Your task to perform on an android device: change the upload size in google photos Image 0: 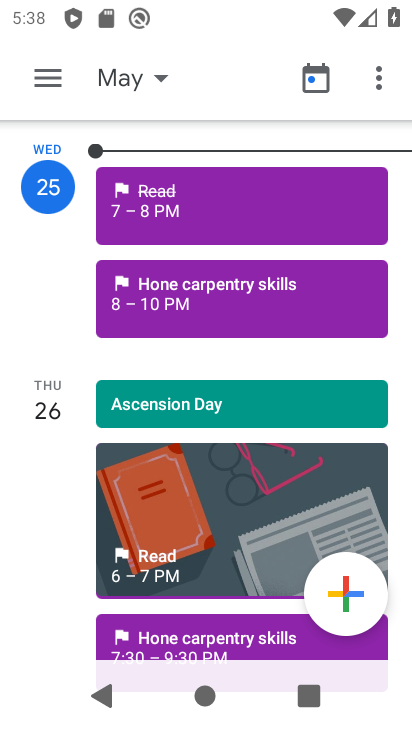
Step 0: press home button
Your task to perform on an android device: change the upload size in google photos Image 1: 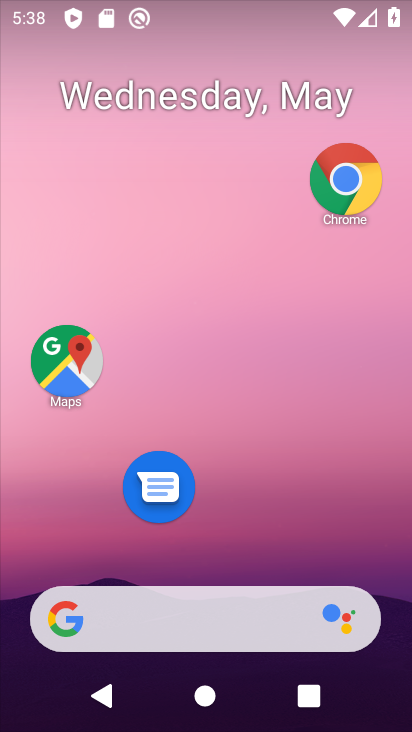
Step 1: drag from (239, 534) to (130, 18)
Your task to perform on an android device: change the upload size in google photos Image 2: 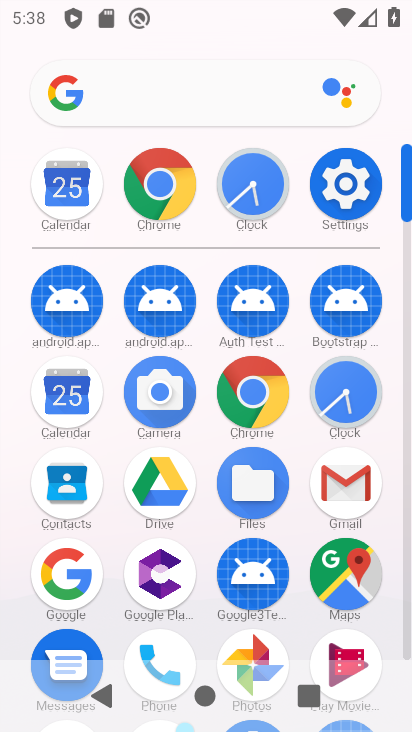
Step 2: click (251, 642)
Your task to perform on an android device: change the upload size in google photos Image 3: 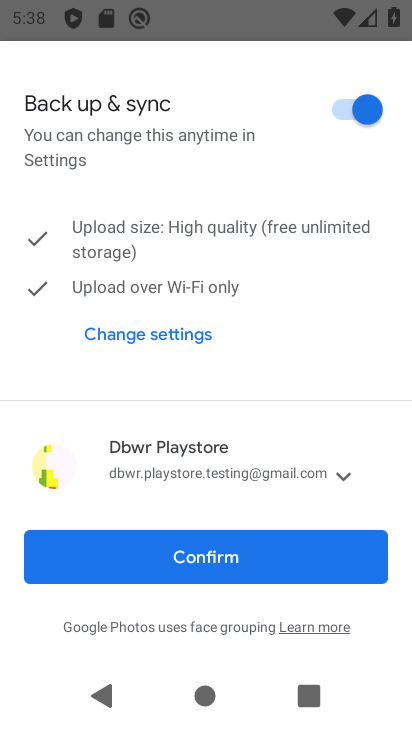
Step 3: click (200, 572)
Your task to perform on an android device: change the upload size in google photos Image 4: 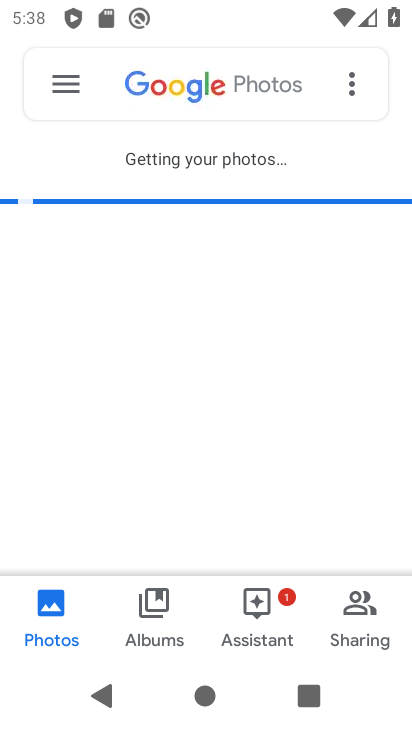
Step 4: click (60, 89)
Your task to perform on an android device: change the upload size in google photos Image 5: 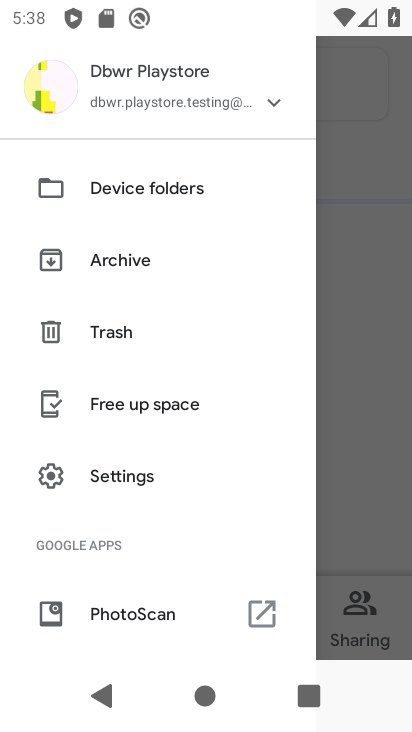
Step 5: click (131, 476)
Your task to perform on an android device: change the upload size in google photos Image 6: 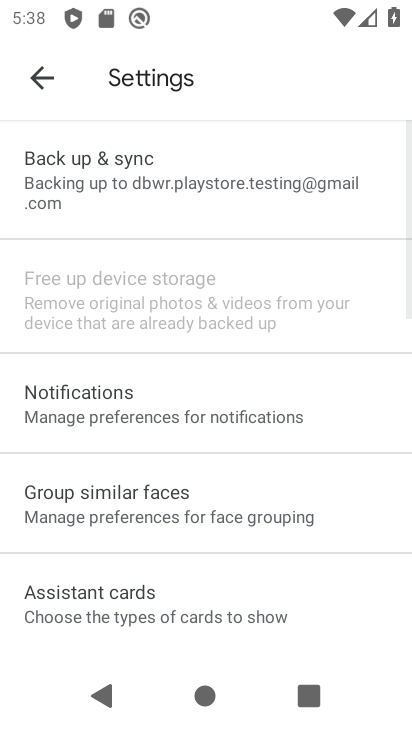
Step 6: click (125, 178)
Your task to perform on an android device: change the upload size in google photos Image 7: 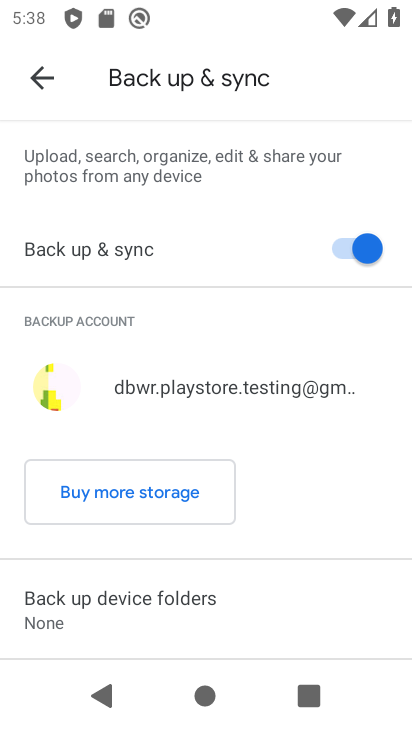
Step 7: drag from (122, 626) to (204, 165)
Your task to perform on an android device: change the upload size in google photos Image 8: 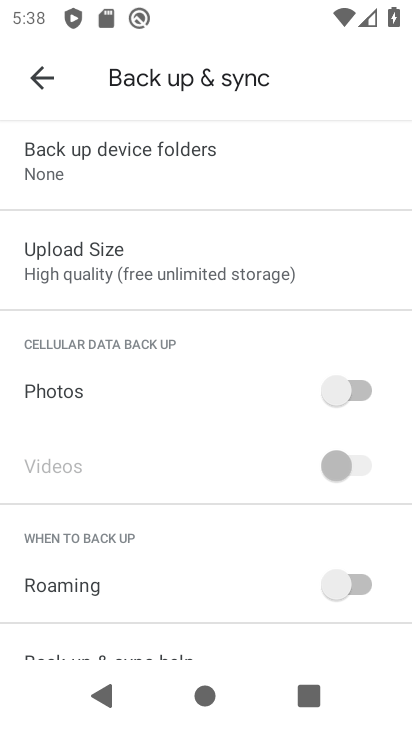
Step 8: click (158, 279)
Your task to perform on an android device: change the upload size in google photos Image 9: 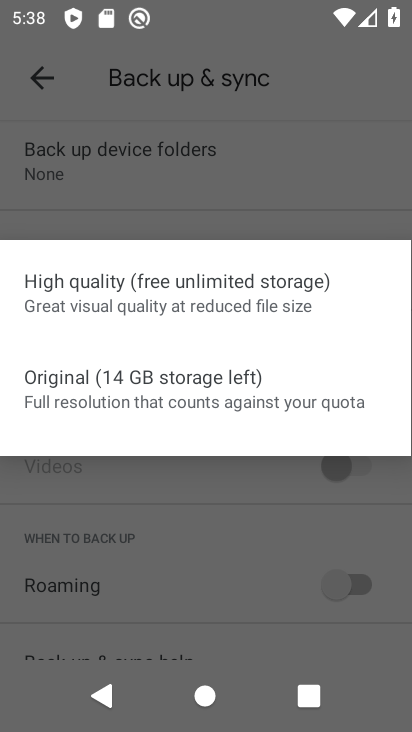
Step 9: click (79, 400)
Your task to perform on an android device: change the upload size in google photos Image 10: 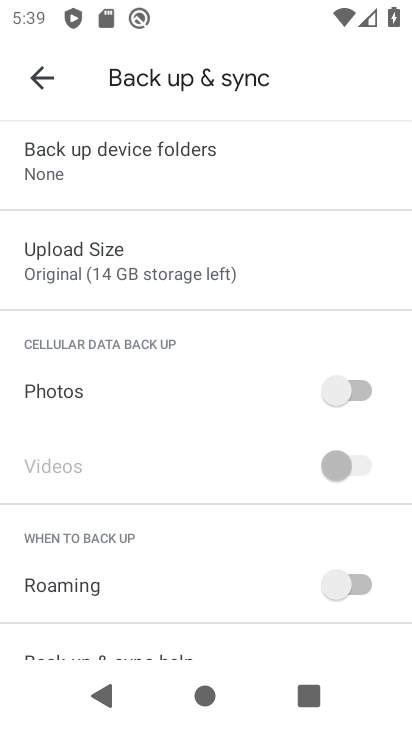
Step 10: task complete